Your task to perform on an android device: Open display settings Image 0: 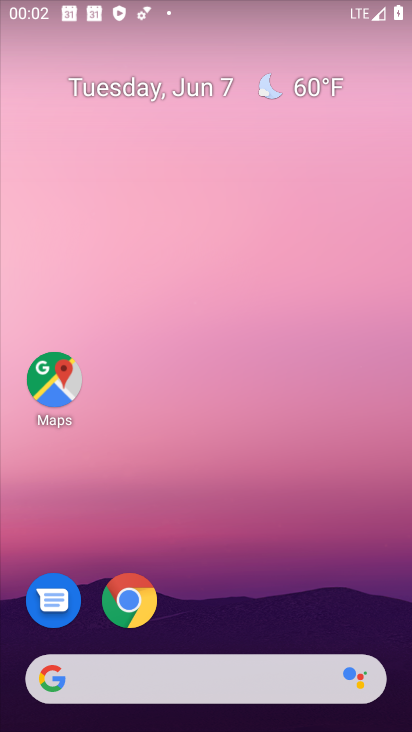
Step 0: drag from (243, 722) to (239, 52)
Your task to perform on an android device: Open display settings Image 1: 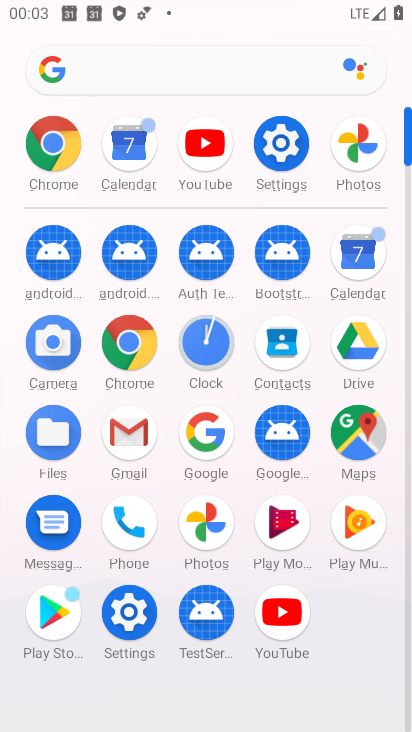
Step 1: click (283, 142)
Your task to perform on an android device: Open display settings Image 2: 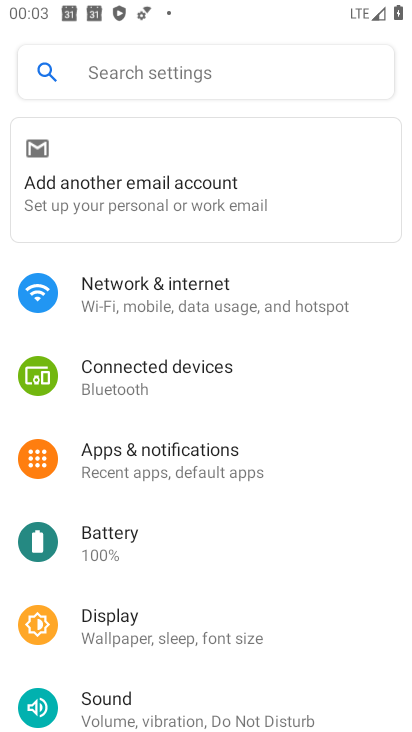
Step 2: drag from (171, 675) to (176, 378)
Your task to perform on an android device: Open display settings Image 3: 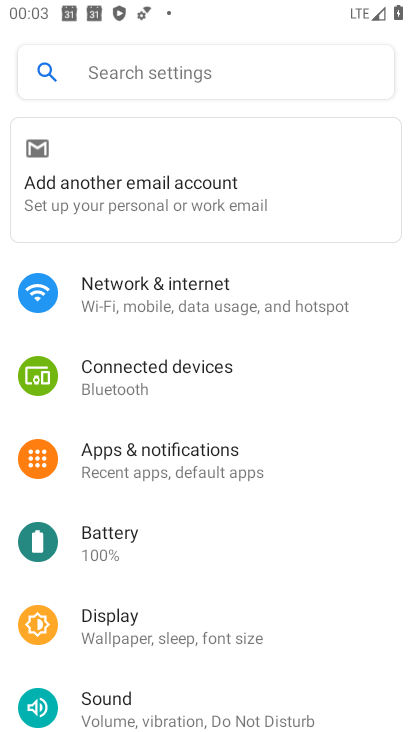
Step 3: click (141, 628)
Your task to perform on an android device: Open display settings Image 4: 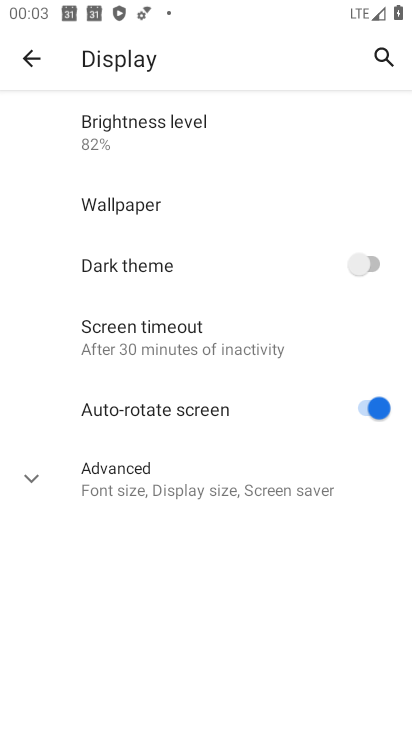
Step 4: task complete